Your task to perform on an android device: Find coffee shops on Maps Image 0: 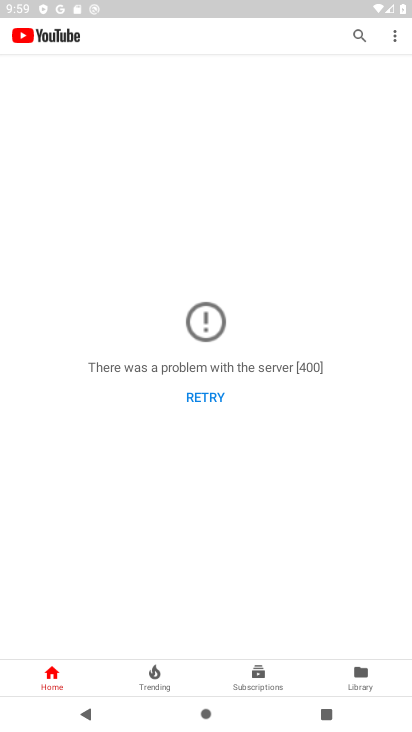
Step 0: press home button
Your task to perform on an android device: Find coffee shops on Maps Image 1: 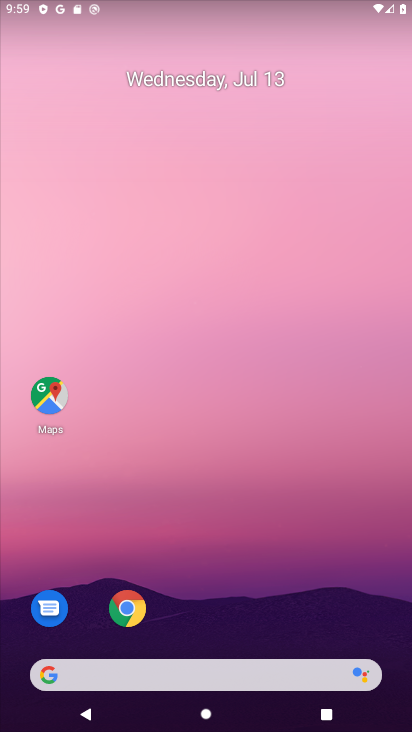
Step 1: click (48, 395)
Your task to perform on an android device: Find coffee shops on Maps Image 2: 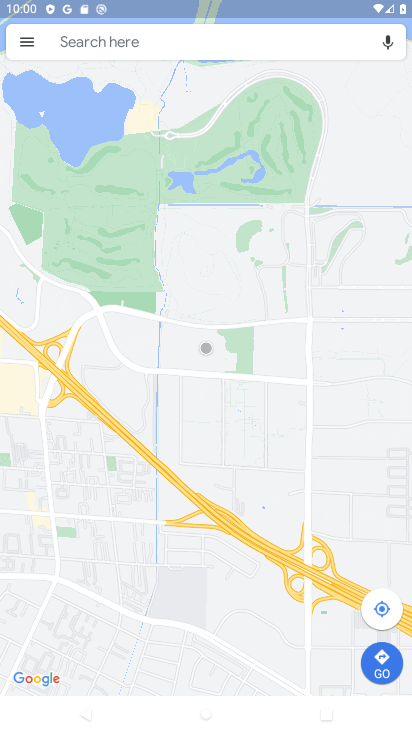
Step 2: click (147, 42)
Your task to perform on an android device: Find coffee shops on Maps Image 3: 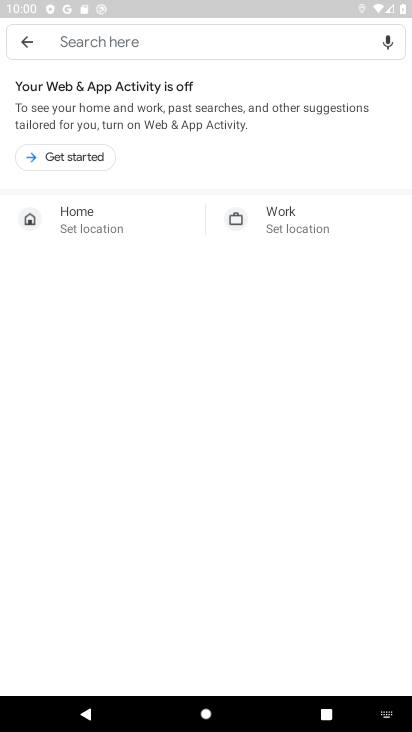
Step 3: type "coffee shops"
Your task to perform on an android device: Find coffee shops on Maps Image 4: 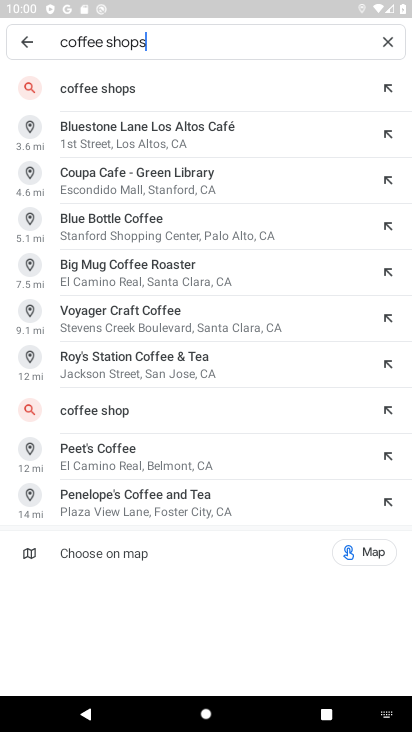
Step 4: click (105, 94)
Your task to perform on an android device: Find coffee shops on Maps Image 5: 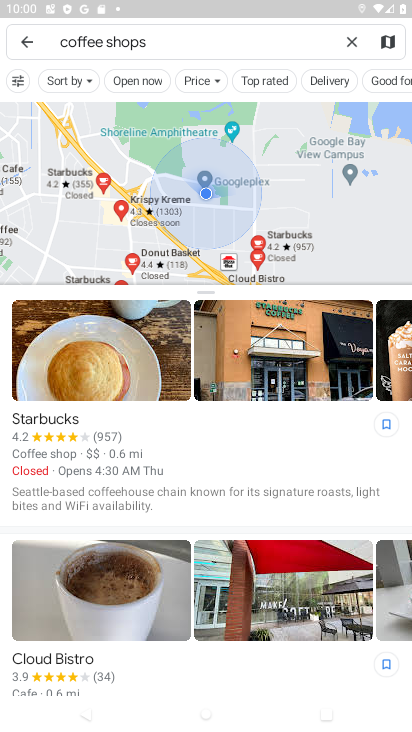
Step 5: task complete